Your task to perform on an android device: Go to wifi settings Image 0: 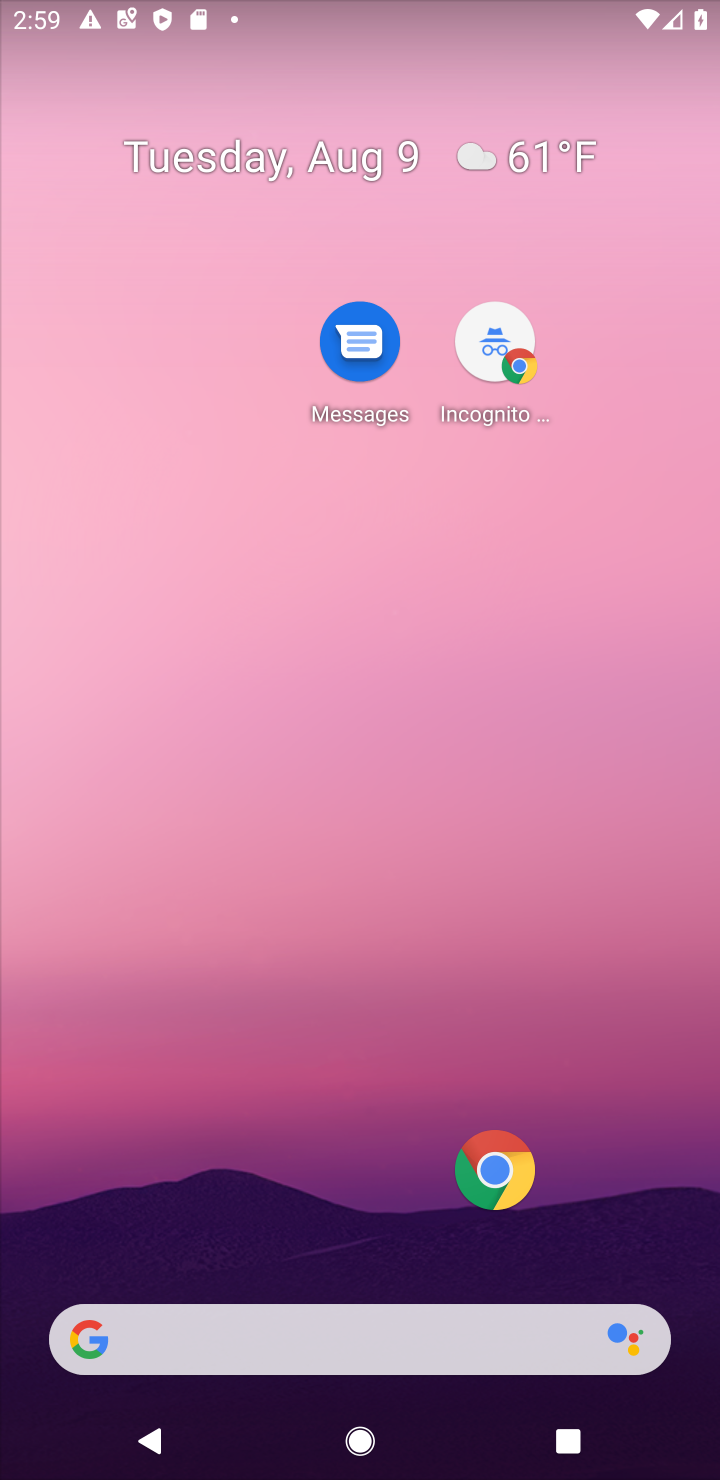
Step 0: drag from (328, 1255) to (209, 21)
Your task to perform on an android device: Go to wifi settings Image 1: 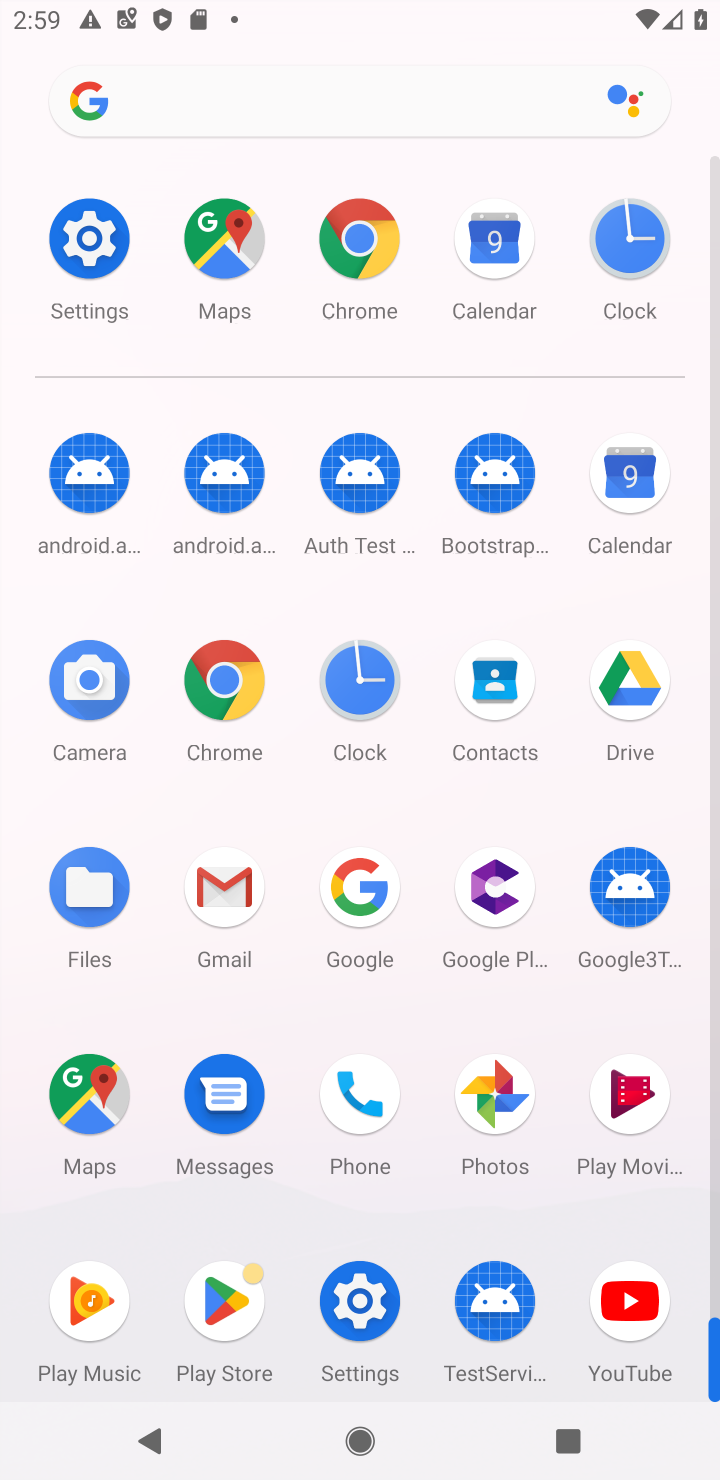
Step 1: click (84, 277)
Your task to perform on an android device: Go to wifi settings Image 2: 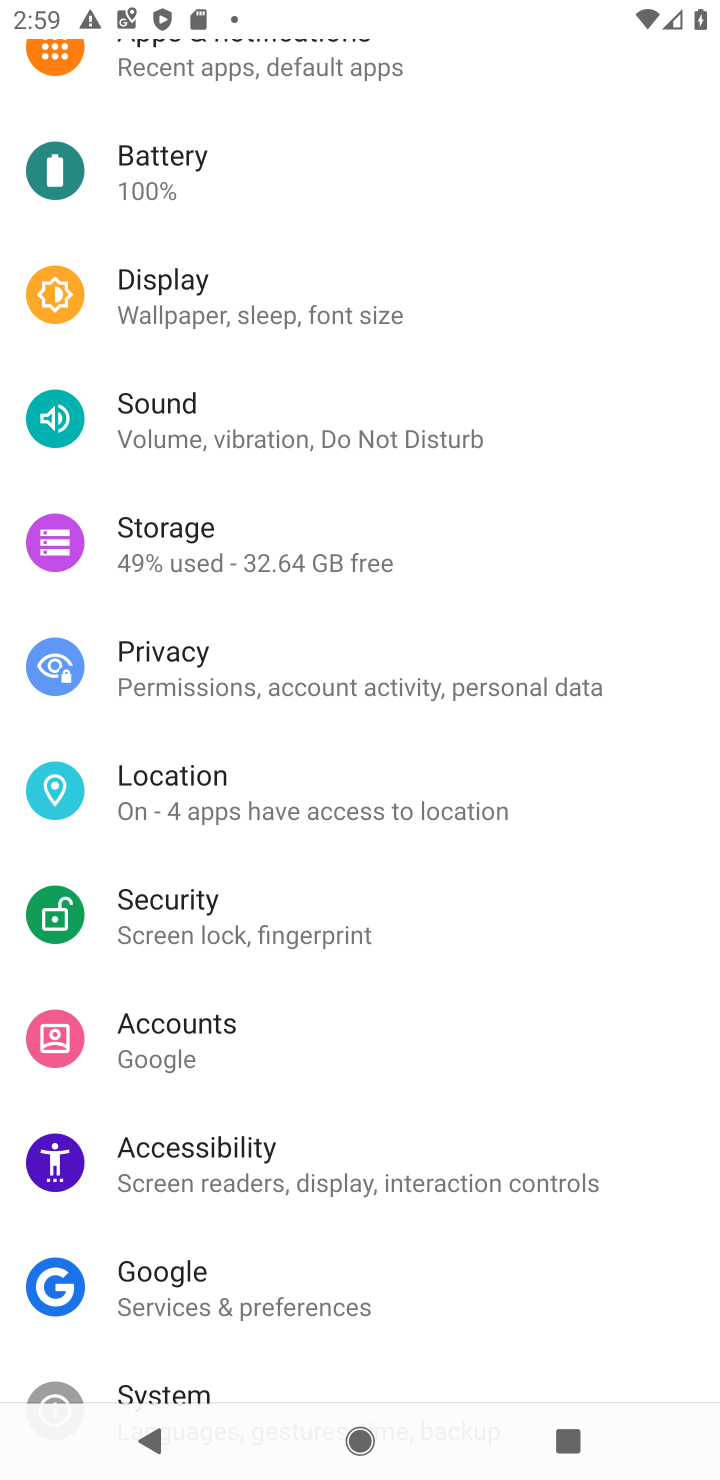
Step 2: drag from (327, 362) to (461, 1289)
Your task to perform on an android device: Go to wifi settings Image 3: 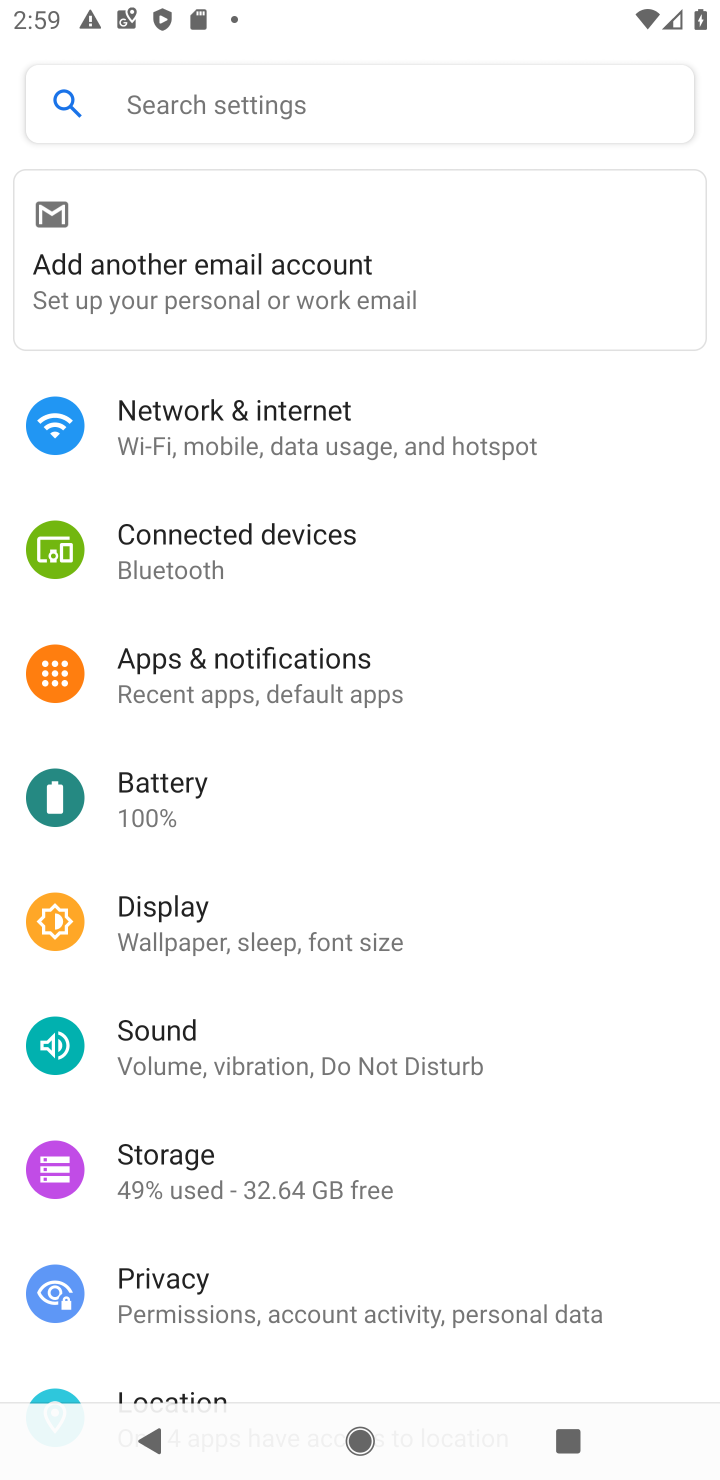
Step 3: click (335, 419)
Your task to perform on an android device: Go to wifi settings Image 4: 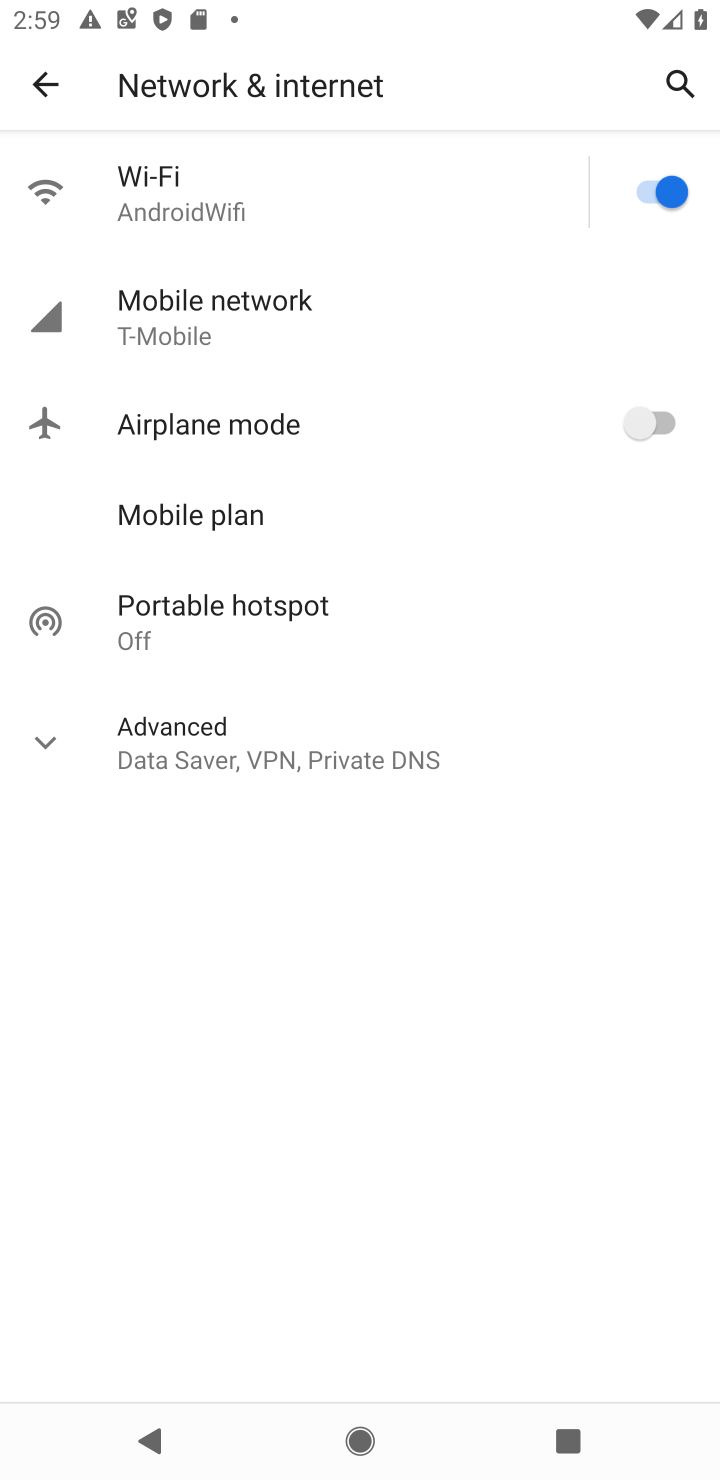
Step 4: click (186, 179)
Your task to perform on an android device: Go to wifi settings Image 5: 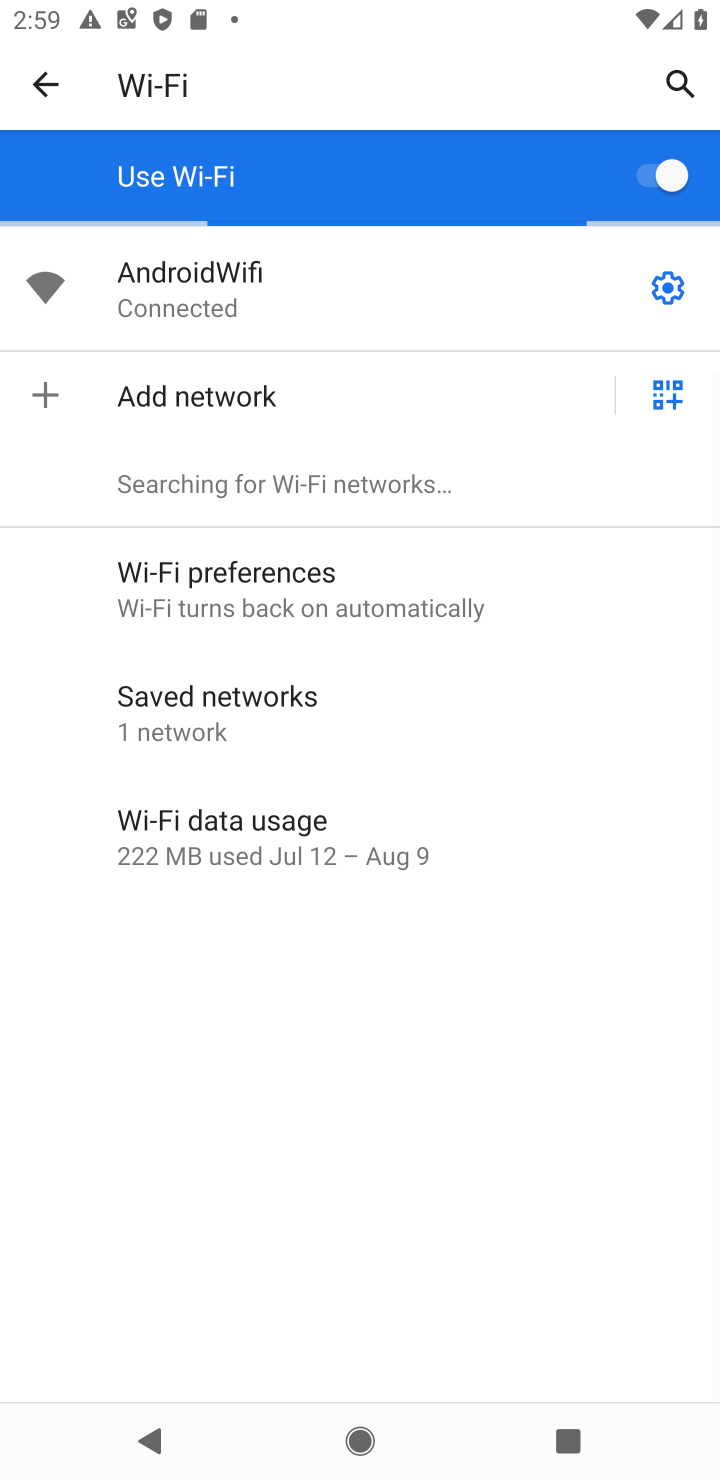
Step 5: task complete